Your task to perform on an android device: set the stopwatch Image 0: 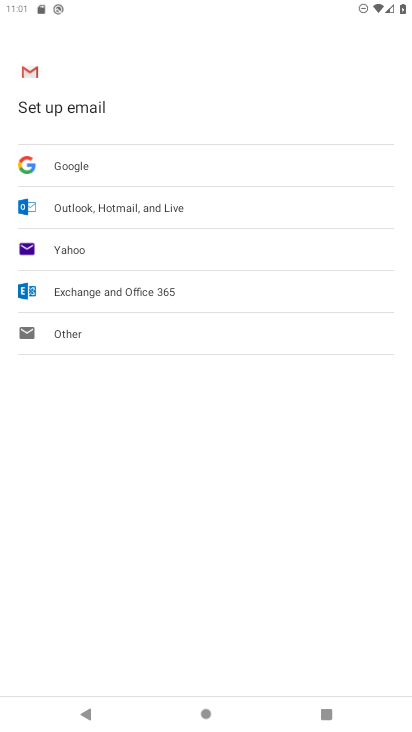
Step 0: press home button
Your task to perform on an android device: set the stopwatch Image 1: 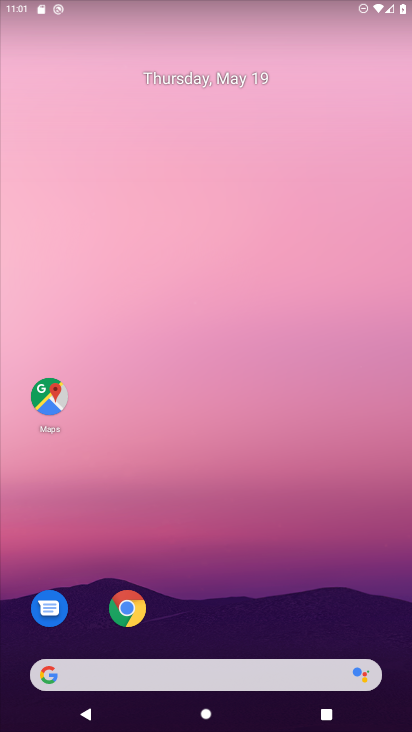
Step 1: drag from (399, 691) to (350, 134)
Your task to perform on an android device: set the stopwatch Image 2: 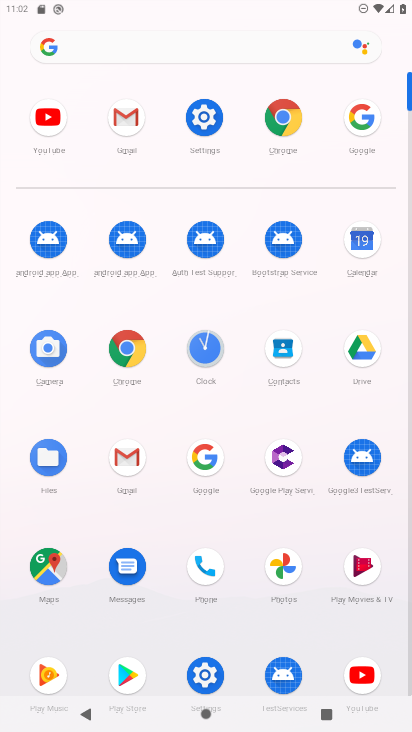
Step 2: click (212, 354)
Your task to perform on an android device: set the stopwatch Image 3: 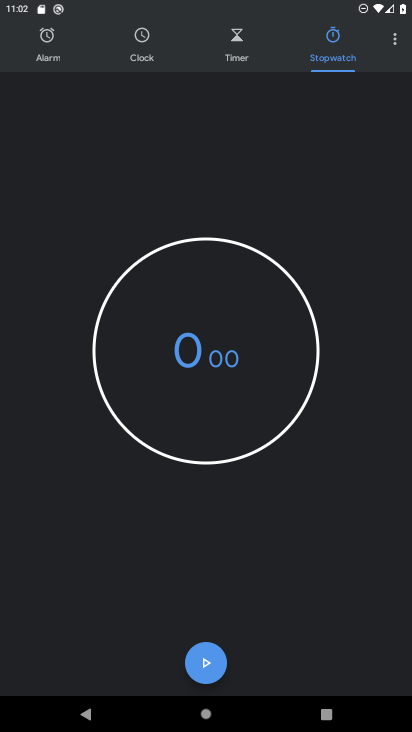
Step 3: click (194, 662)
Your task to perform on an android device: set the stopwatch Image 4: 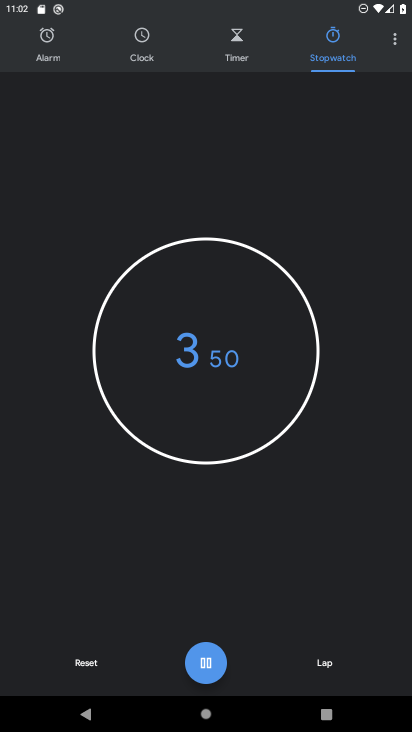
Step 4: task complete